Your task to perform on an android device: turn on priority inbox in the gmail app Image 0: 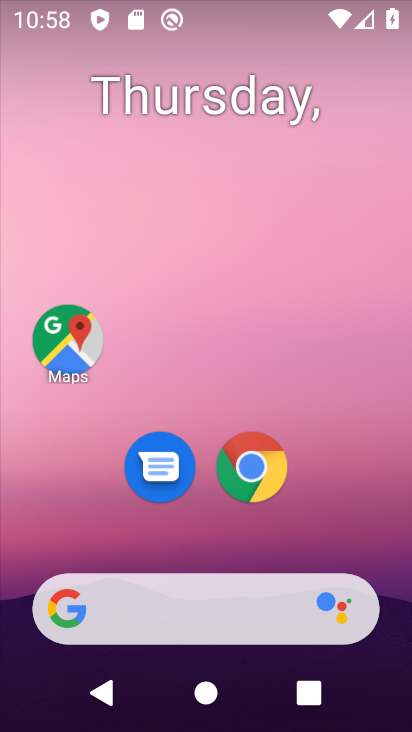
Step 0: drag from (197, 544) to (324, 13)
Your task to perform on an android device: turn on priority inbox in the gmail app Image 1: 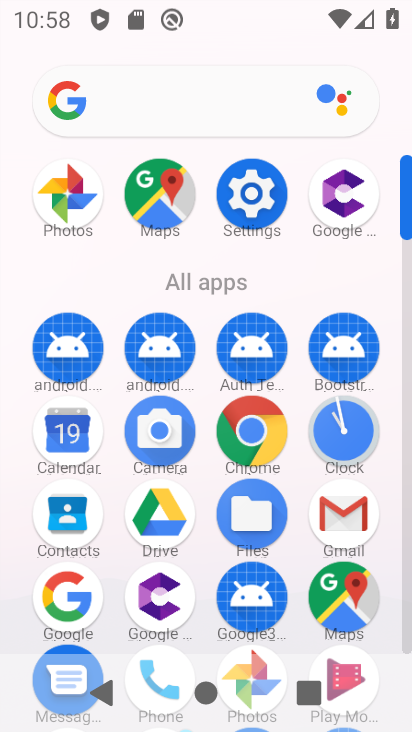
Step 1: click (344, 522)
Your task to perform on an android device: turn on priority inbox in the gmail app Image 2: 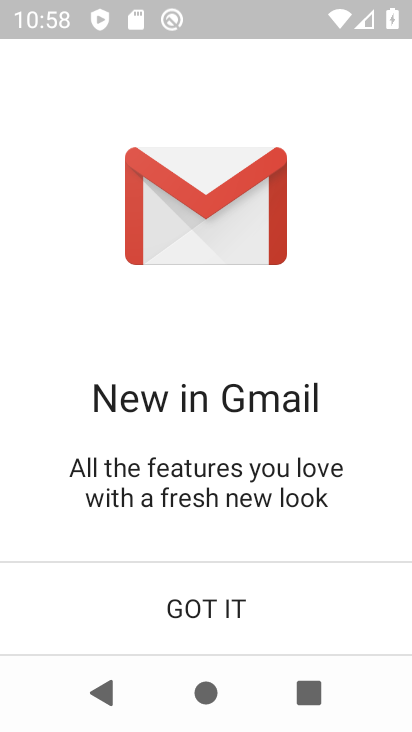
Step 2: click (228, 588)
Your task to perform on an android device: turn on priority inbox in the gmail app Image 3: 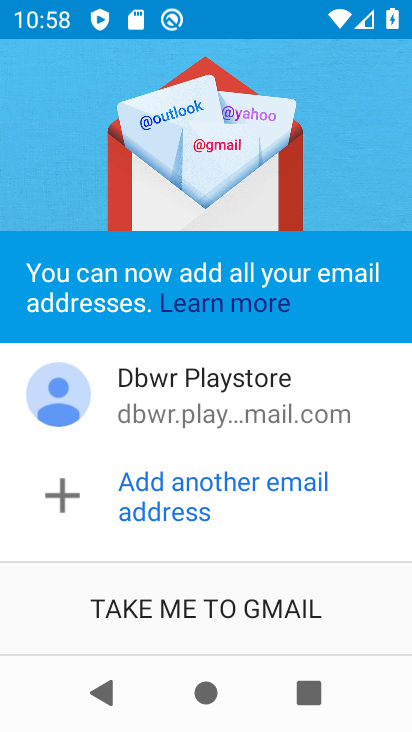
Step 3: click (221, 593)
Your task to perform on an android device: turn on priority inbox in the gmail app Image 4: 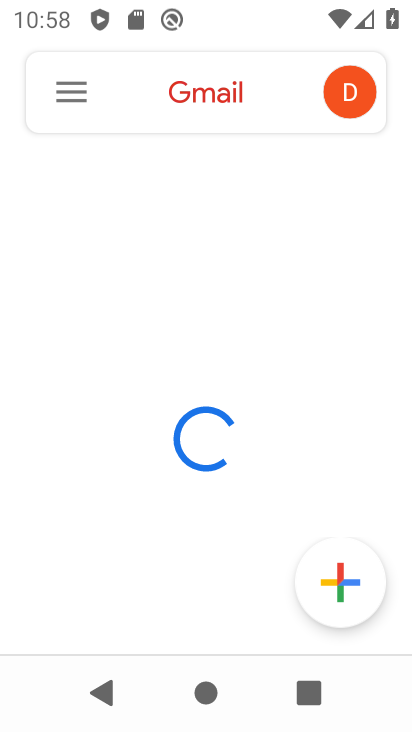
Step 4: click (59, 77)
Your task to perform on an android device: turn on priority inbox in the gmail app Image 5: 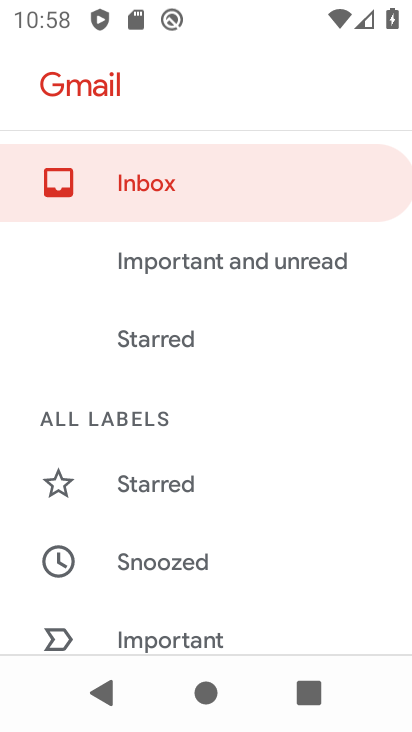
Step 5: drag from (163, 603) to (307, 76)
Your task to perform on an android device: turn on priority inbox in the gmail app Image 6: 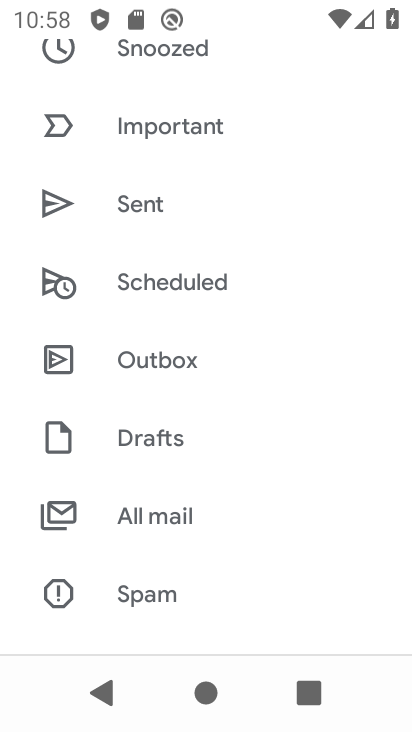
Step 6: drag from (177, 595) to (305, 94)
Your task to perform on an android device: turn on priority inbox in the gmail app Image 7: 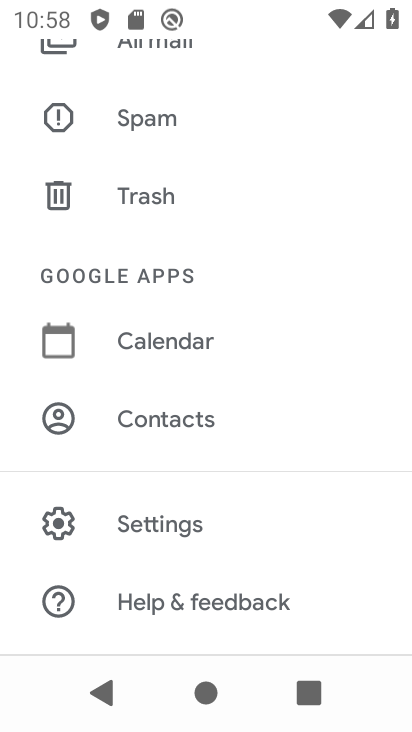
Step 7: click (172, 529)
Your task to perform on an android device: turn on priority inbox in the gmail app Image 8: 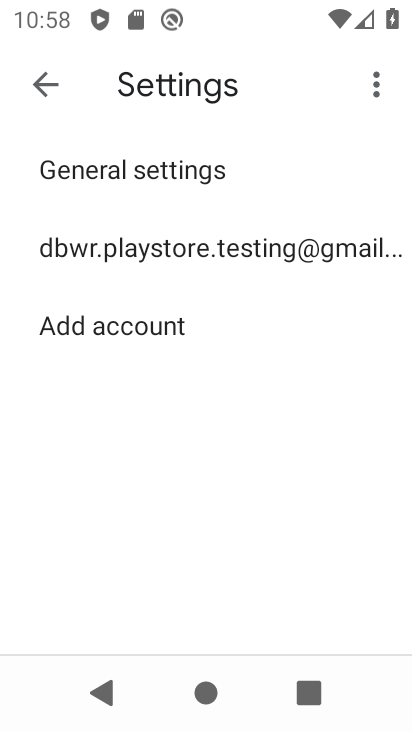
Step 8: click (147, 243)
Your task to perform on an android device: turn on priority inbox in the gmail app Image 9: 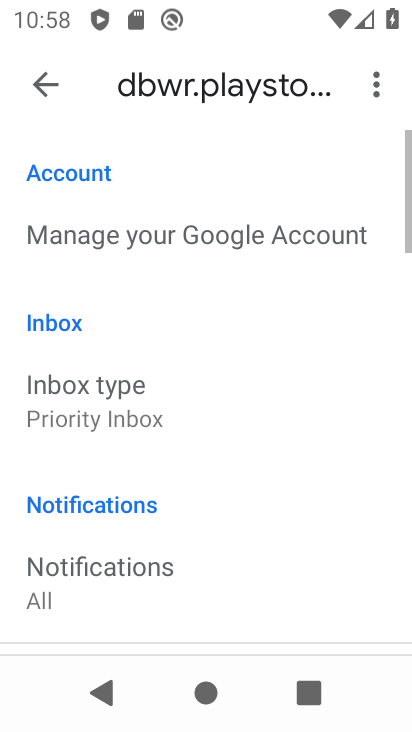
Step 9: click (111, 402)
Your task to perform on an android device: turn on priority inbox in the gmail app Image 10: 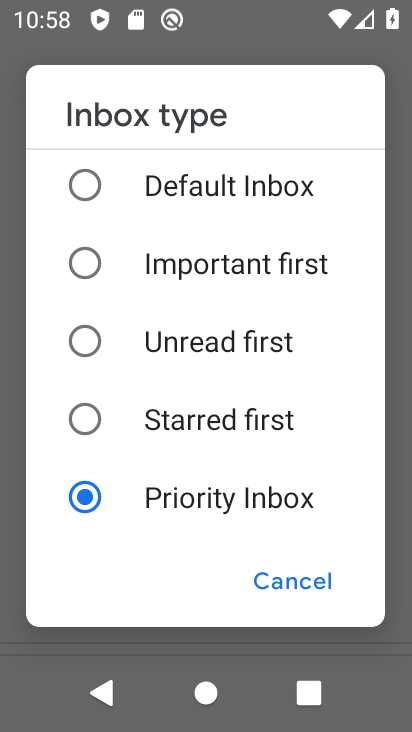
Step 10: task complete